Your task to perform on an android device: Turn off the flashlight Image 0: 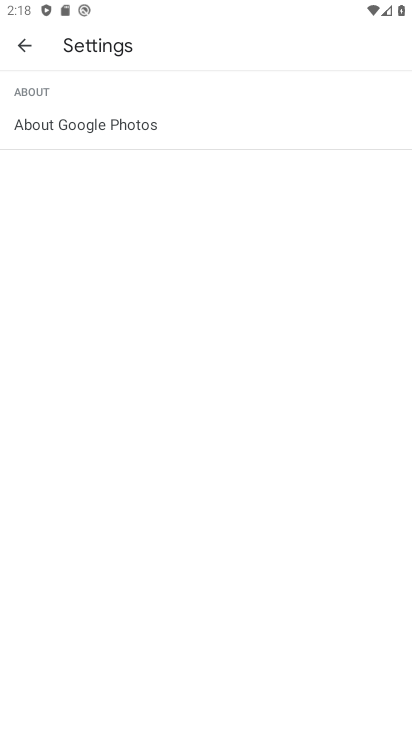
Step 0: press home button
Your task to perform on an android device: Turn off the flashlight Image 1: 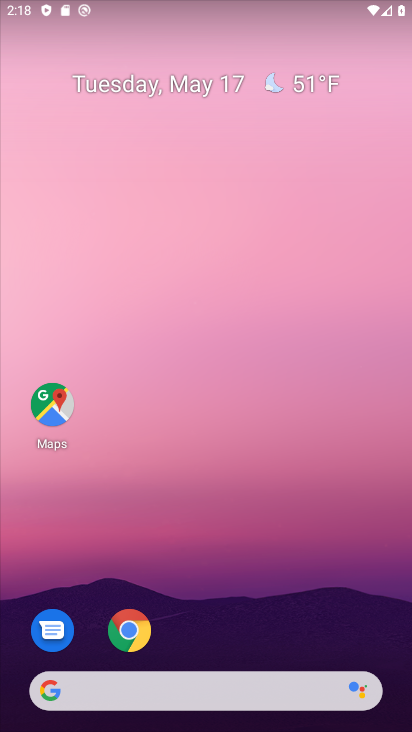
Step 1: task complete